Your task to perform on an android device: Open Google Chrome Image 0: 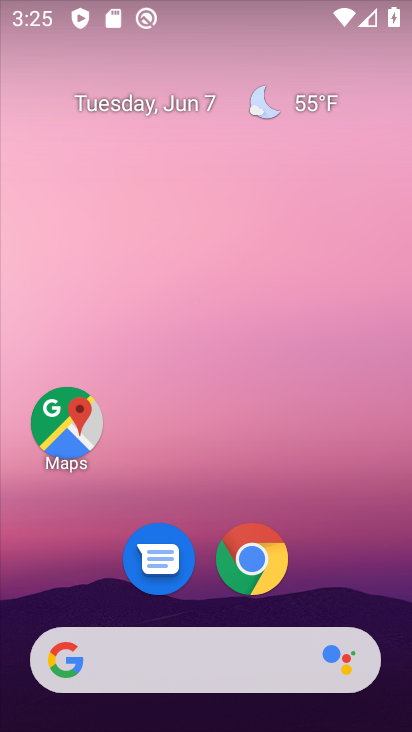
Step 0: click (249, 557)
Your task to perform on an android device: Open Google Chrome Image 1: 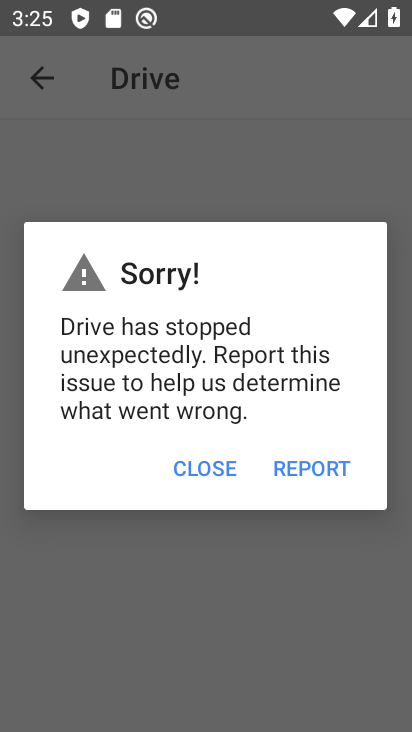
Step 1: press home button
Your task to perform on an android device: Open Google Chrome Image 2: 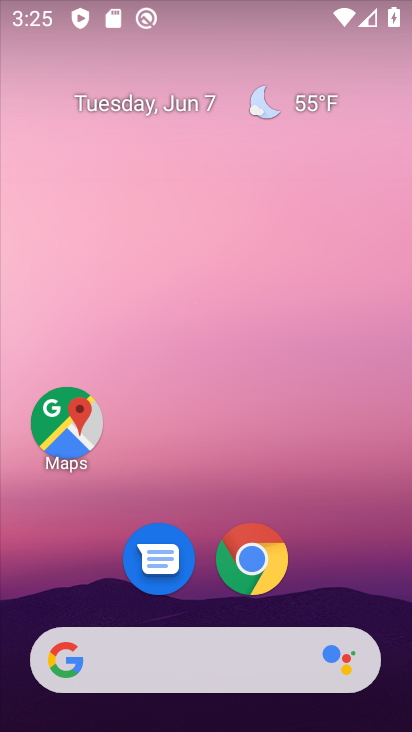
Step 2: click (252, 555)
Your task to perform on an android device: Open Google Chrome Image 3: 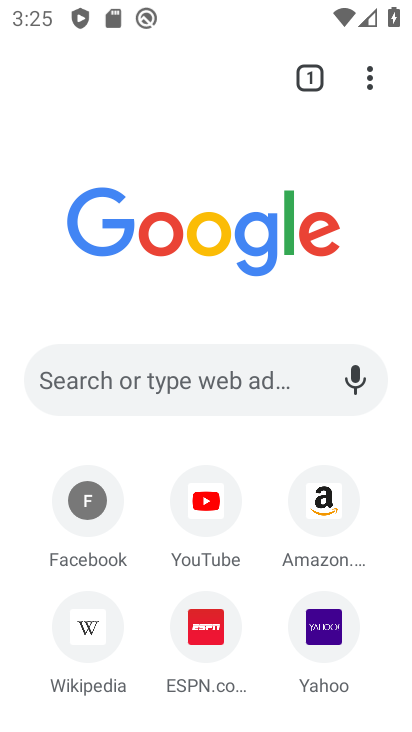
Step 3: task complete